Your task to perform on an android device: snooze an email in the gmail app Image 0: 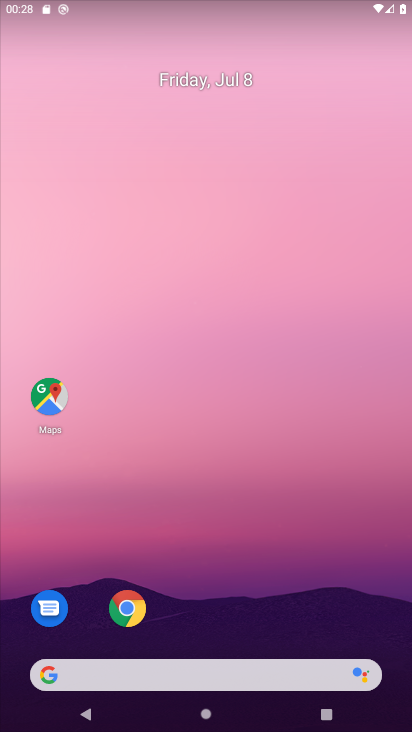
Step 0: drag from (310, 624) to (297, 156)
Your task to perform on an android device: snooze an email in the gmail app Image 1: 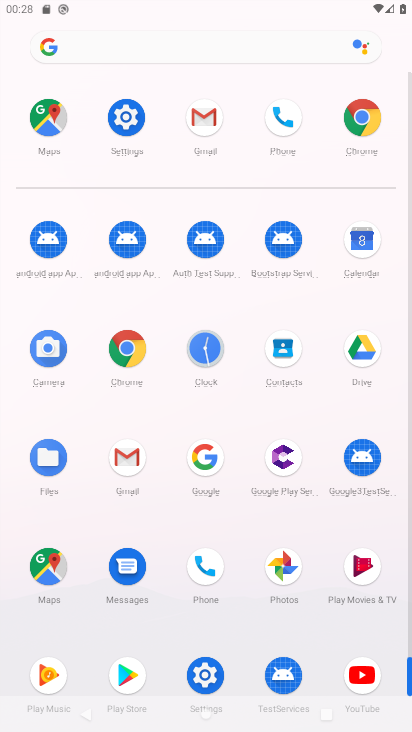
Step 1: click (204, 102)
Your task to perform on an android device: snooze an email in the gmail app Image 2: 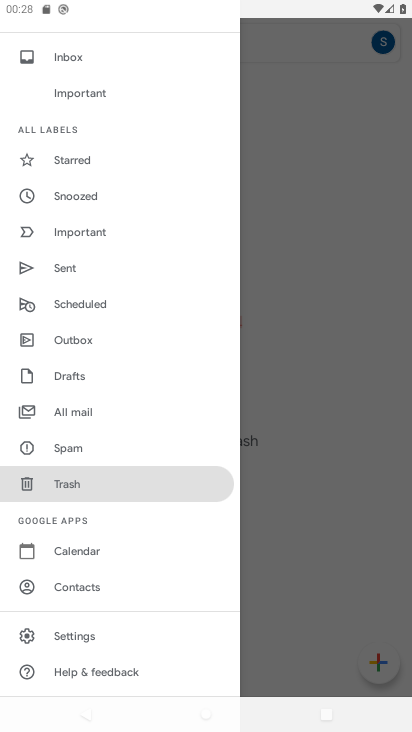
Step 2: click (84, 194)
Your task to perform on an android device: snooze an email in the gmail app Image 3: 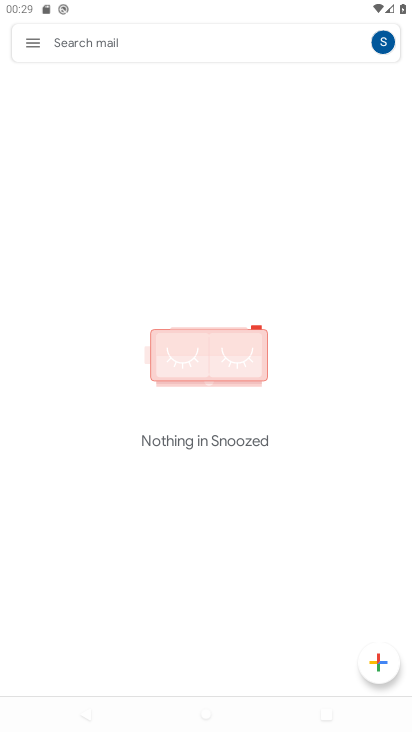
Step 3: task complete